Your task to perform on an android device: open app "Google Find My Device" Image 0: 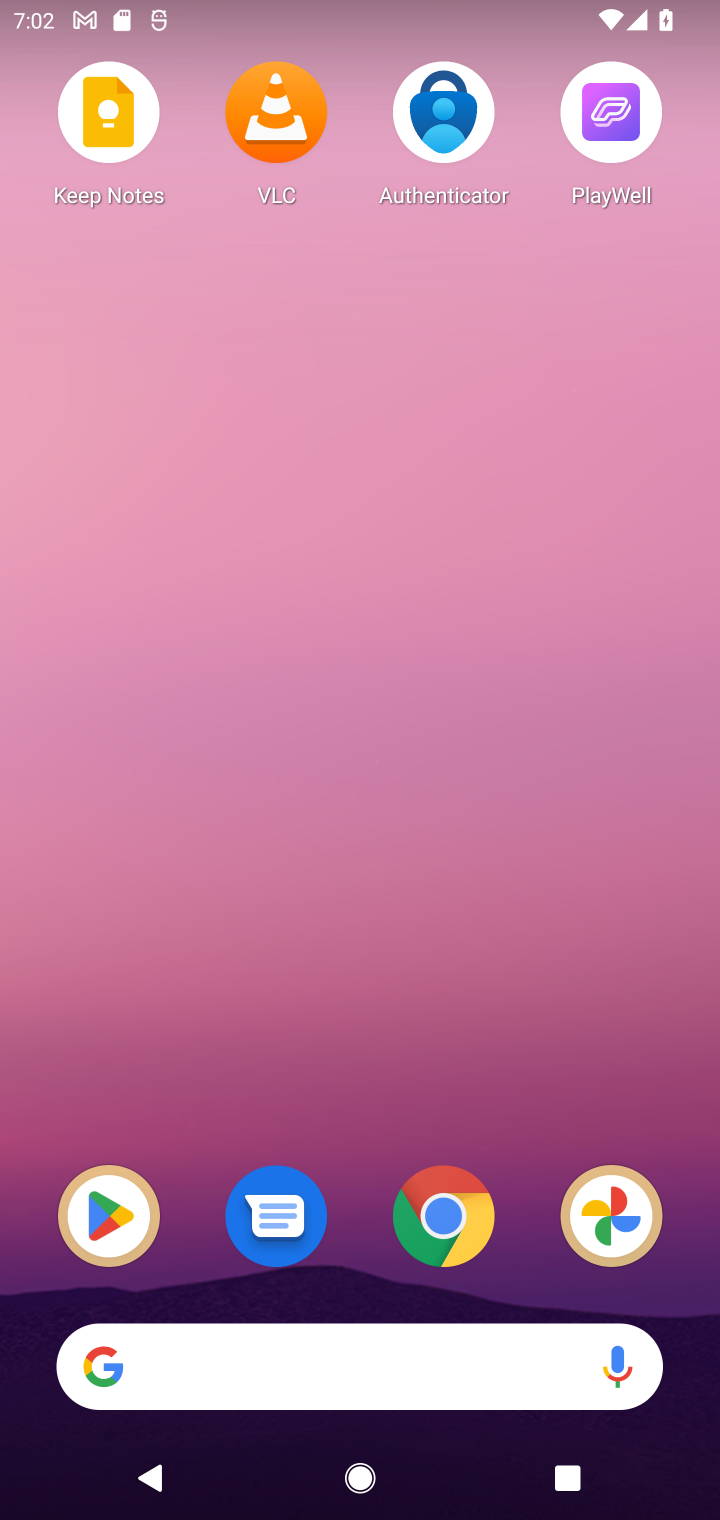
Step 0: press home button
Your task to perform on an android device: open app "Google Find My Device" Image 1: 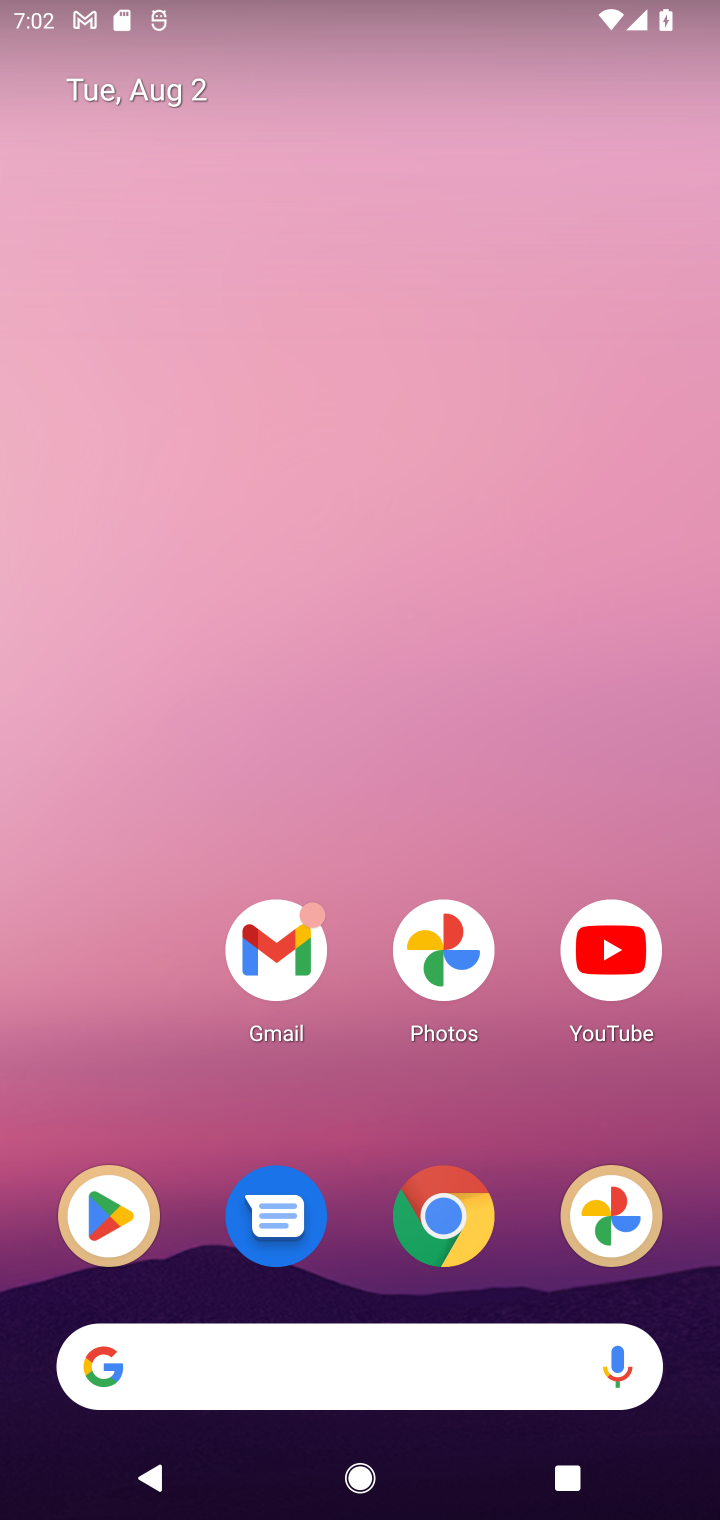
Step 1: click (119, 1206)
Your task to perform on an android device: open app "Google Find My Device" Image 2: 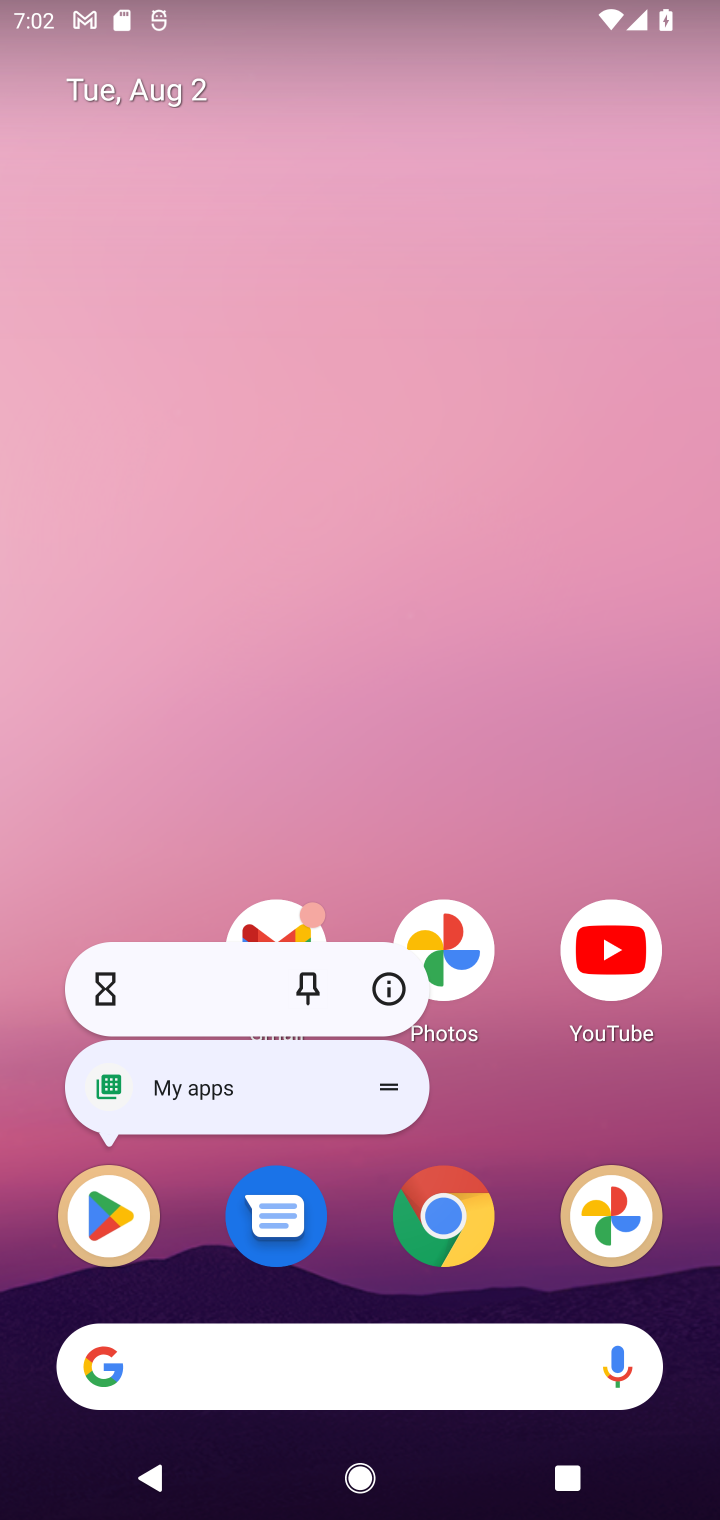
Step 2: click (98, 1215)
Your task to perform on an android device: open app "Google Find My Device" Image 3: 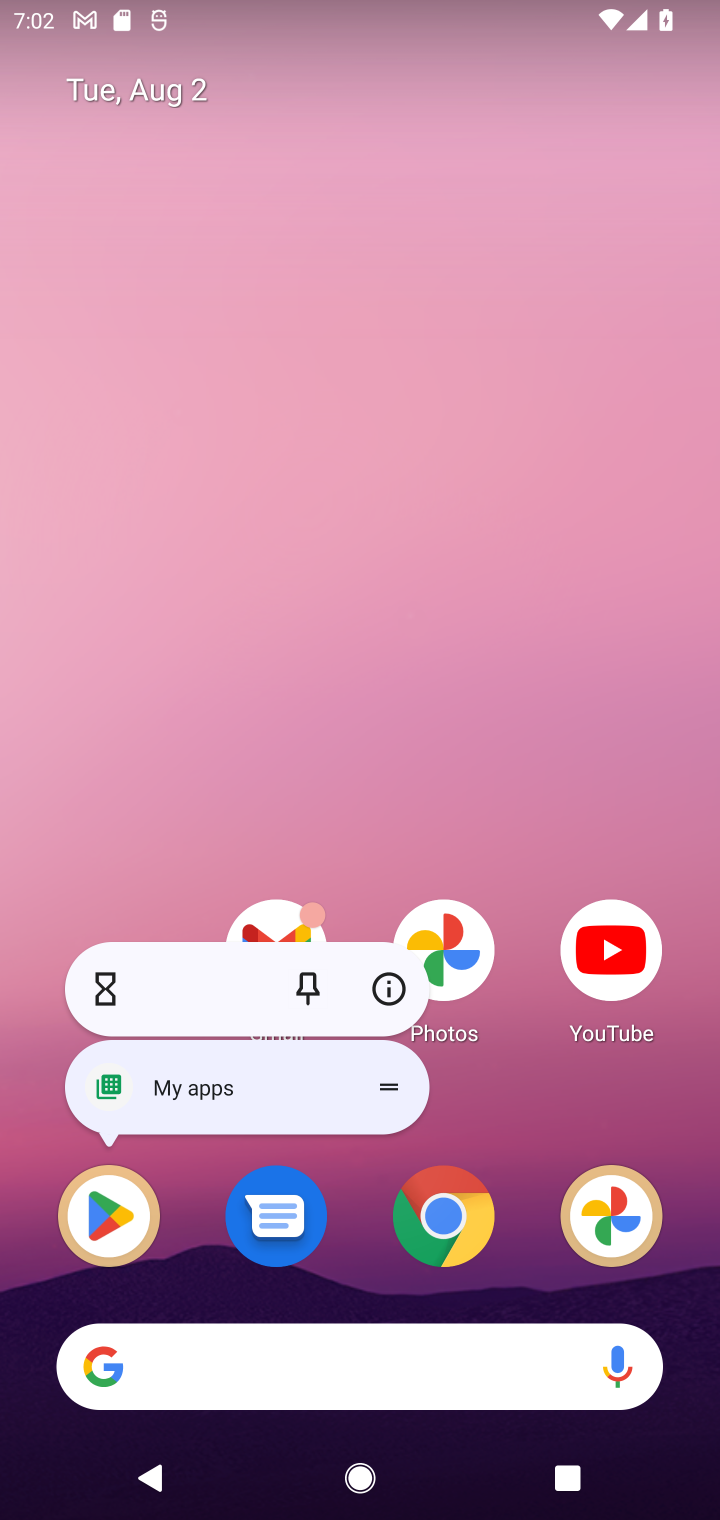
Step 3: click (100, 1215)
Your task to perform on an android device: open app "Google Find My Device" Image 4: 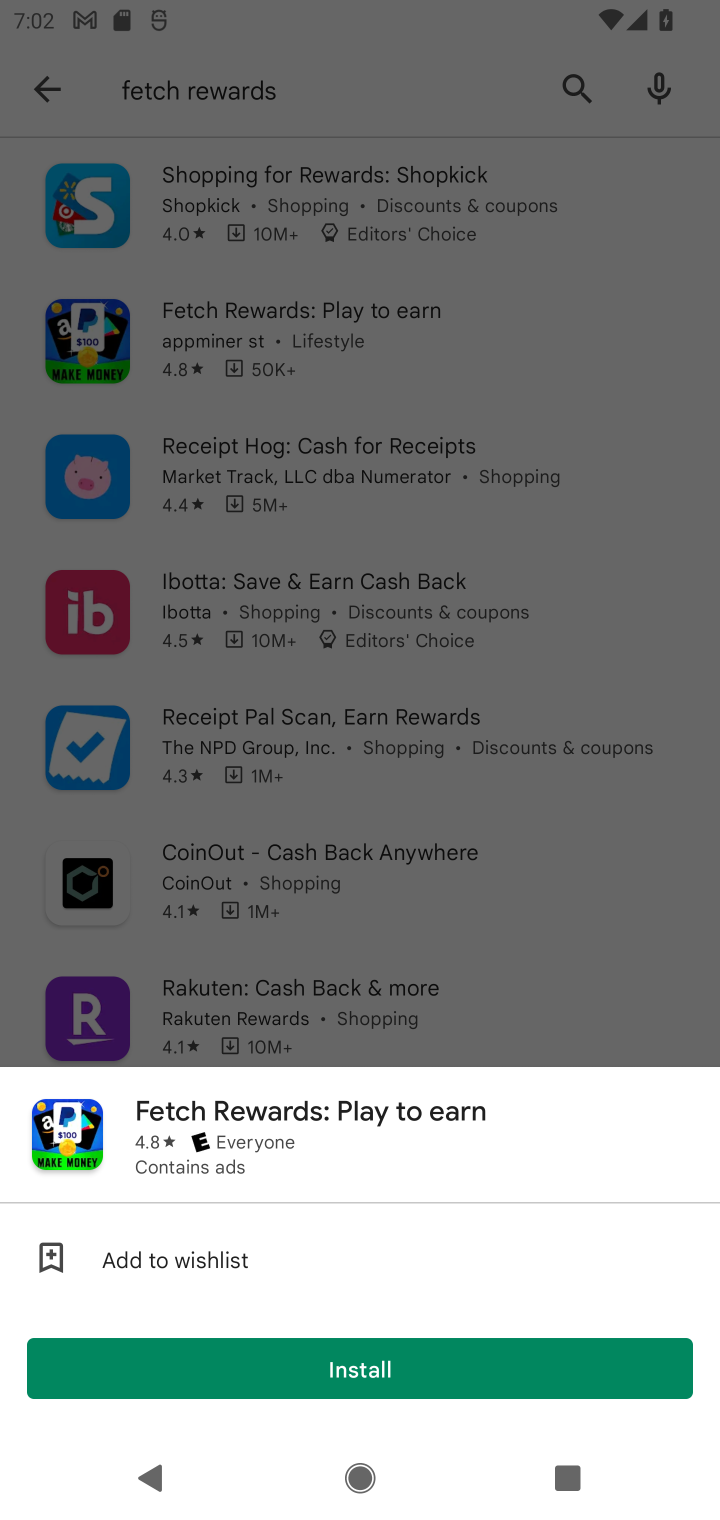
Step 4: click (573, 85)
Your task to perform on an android device: open app "Google Find My Device" Image 5: 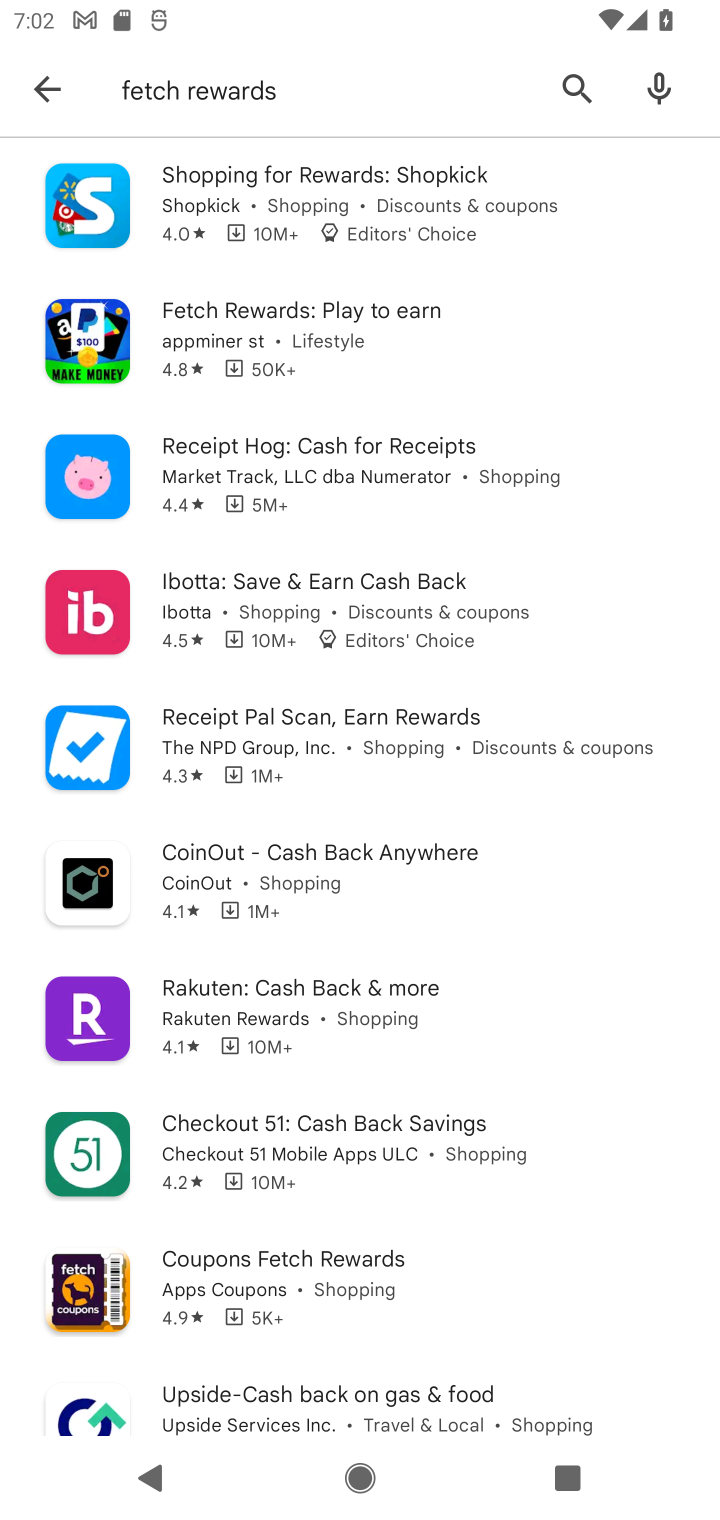
Step 5: click (573, 85)
Your task to perform on an android device: open app "Google Find My Device" Image 6: 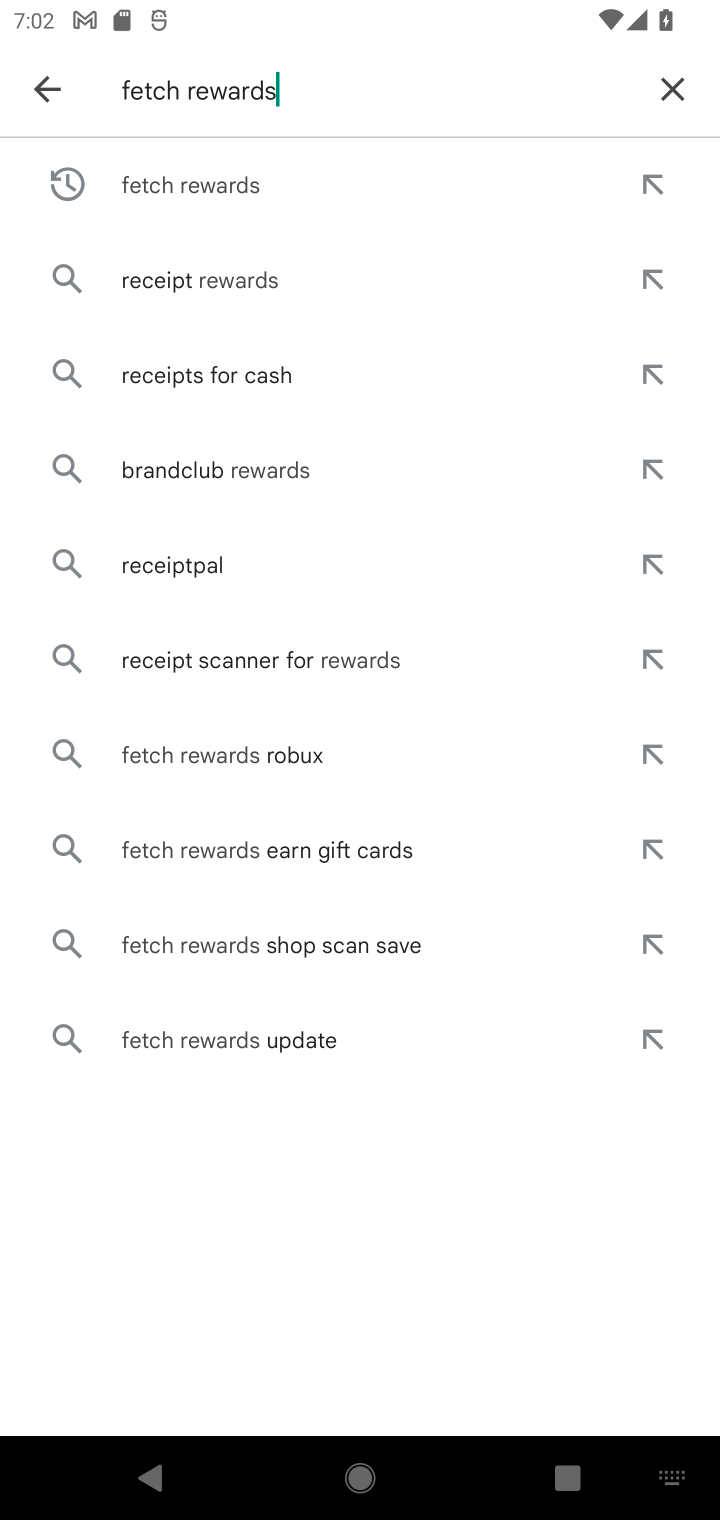
Step 6: type "Google Find My Device"
Your task to perform on an android device: open app "Google Find My Device" Image 7: 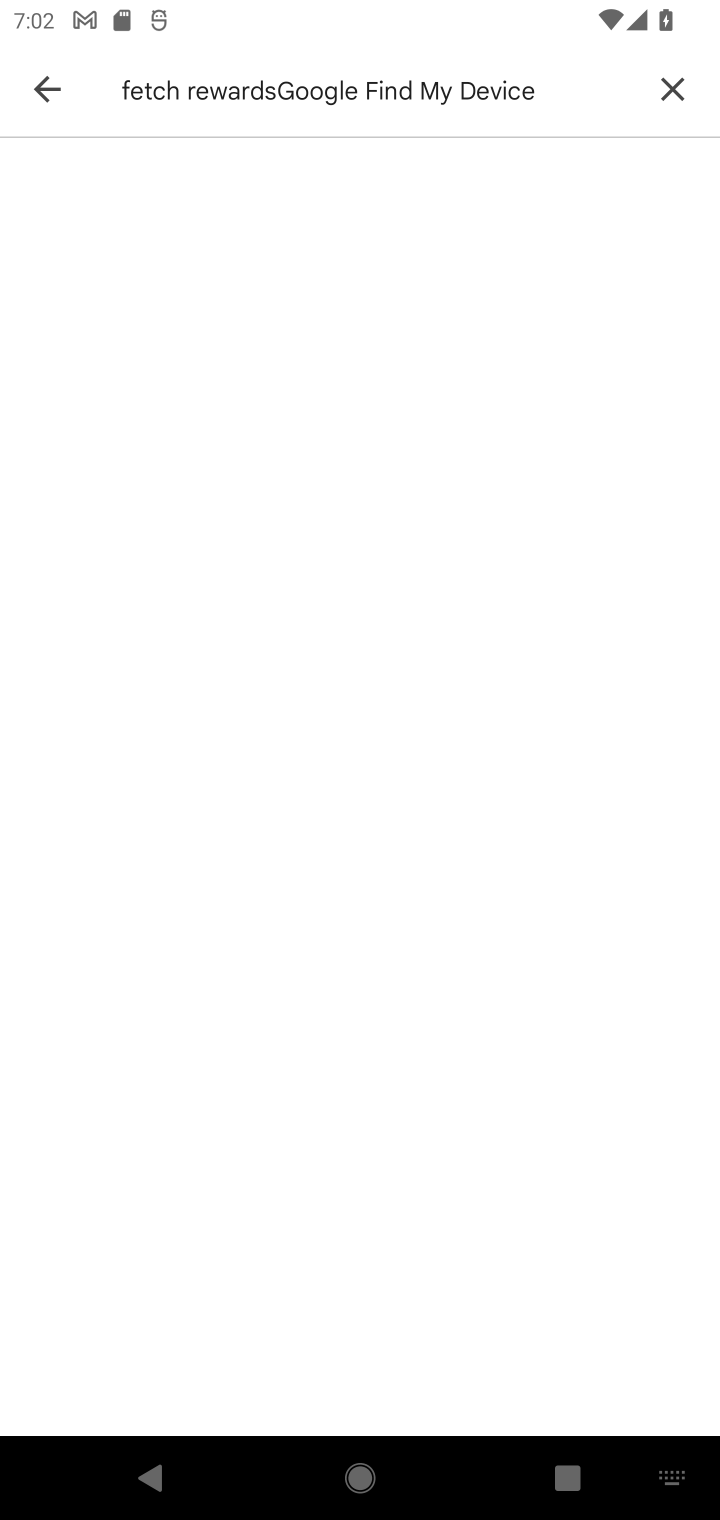
Step 7: click (669, 78)
Your task to perform on an android device: open app "Google Find My Device" Image 8: 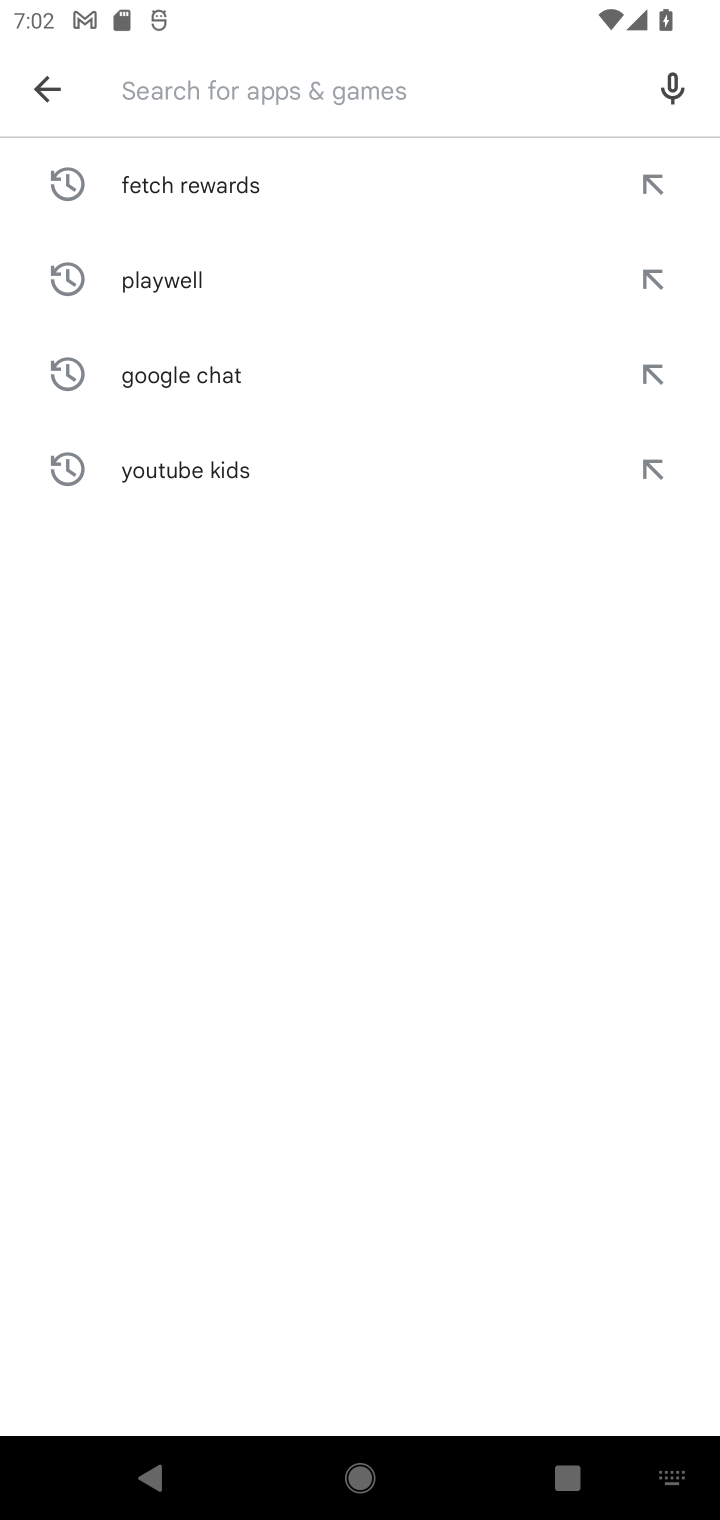
Step 8: type "Google Find My Device"
Your task to perform on an android device: open app "Google Find My Device" Image 9: 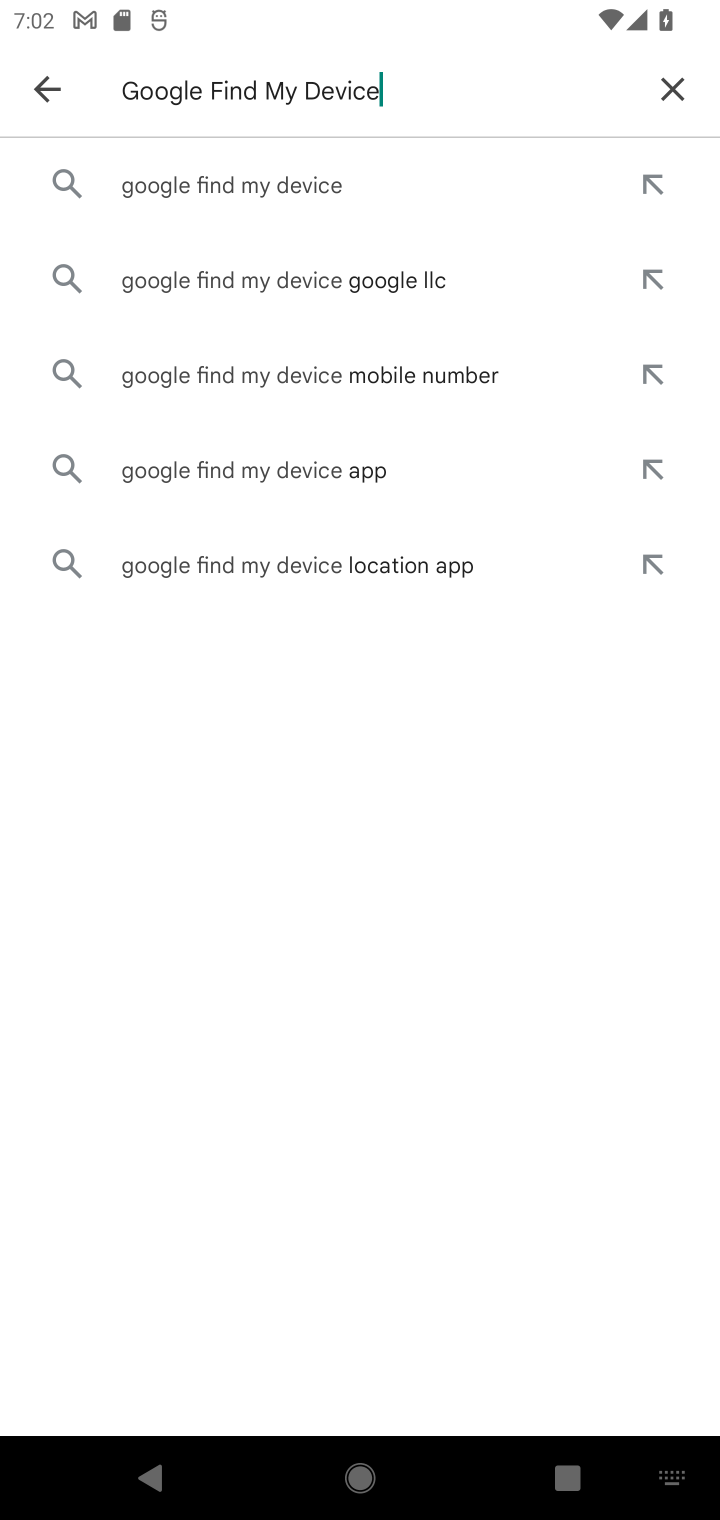
Step 9: click (207, 186)
Your task to perform on an android device: open app "Google Find My Device" Image 10: 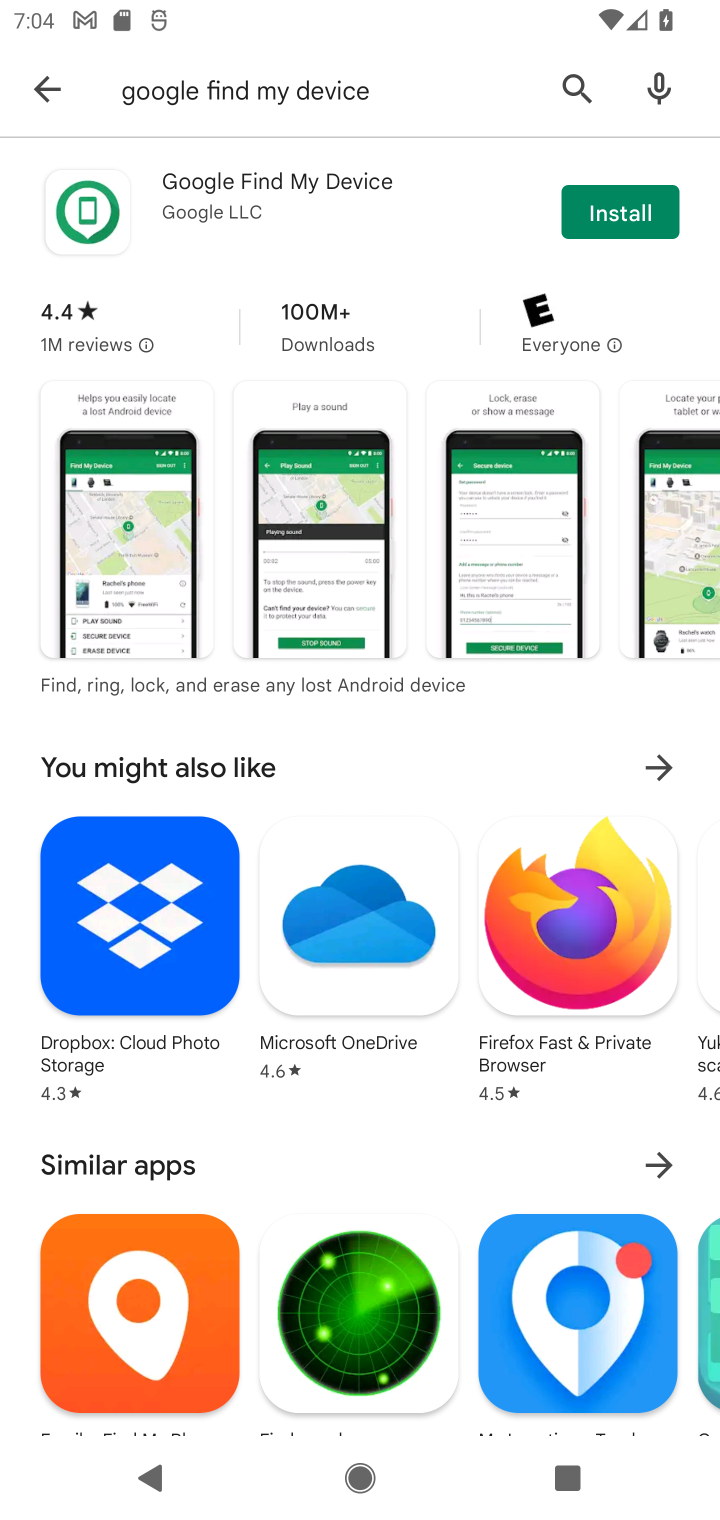
Step 10: task complete